Your task to perform on an android device: turn off notifications settings in the gmail app Image 0: 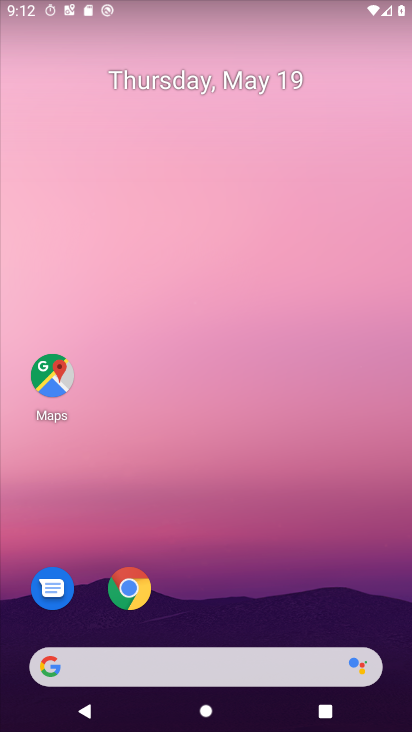
Step 0: press home button
Your task to perform on an android device: turn off notifications settings in the gmail app Image 1: 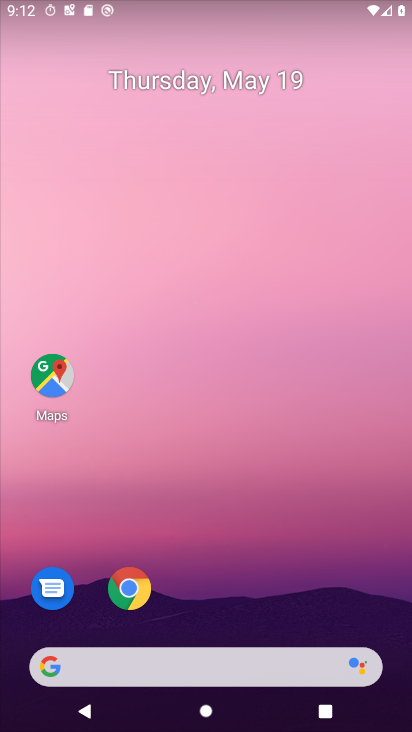
Step 1: drag from (179, 612) to (325, 179)
Your task to perform on an android device: turn off notifications settings in the gmail app Image 2: 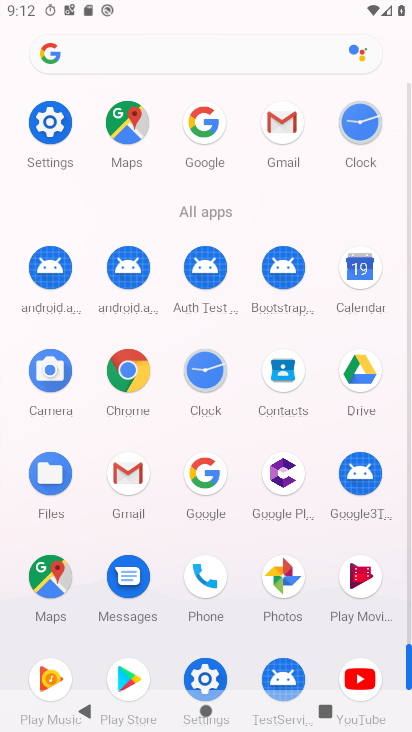
Step 2: click (276, 129)
Your task to perform on an android device: turn off notifications settings in the gmail app Image 3: 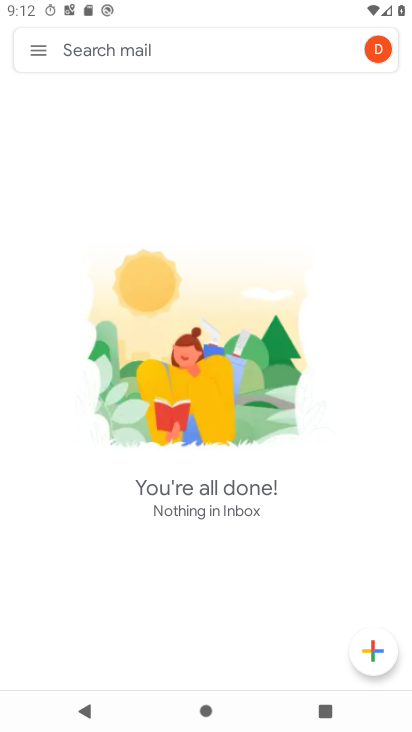
Step 3: click (36, 50)
Your task to perform on an android device: turn off notifications settings in the gmail app Image 4: 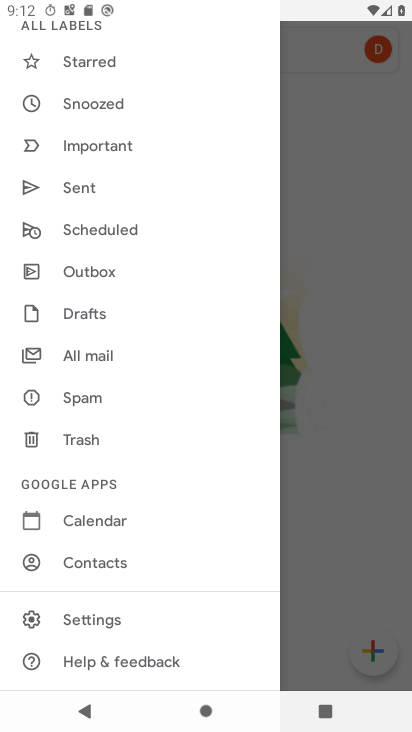
Step 4: click (87, 619)
Your task to perform on an android device: turn off notifications settings in the gmail app Image 5: 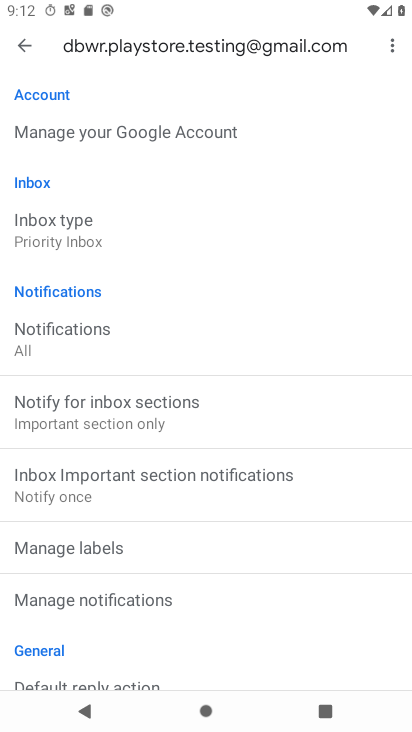
Step 5: click (55, 335)
Your task to perform on an android device: turn off notifications settings in the gmail app Image 6: 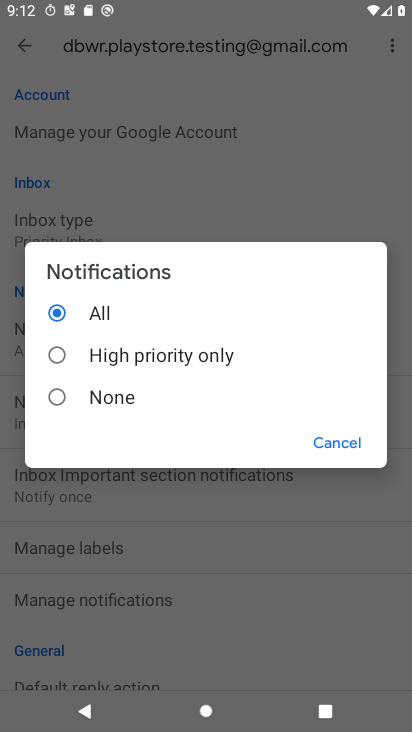
Step 6: click (63, 394)
Your task to perform on an android device: turn off notifications settings in the gmail app Image 7: 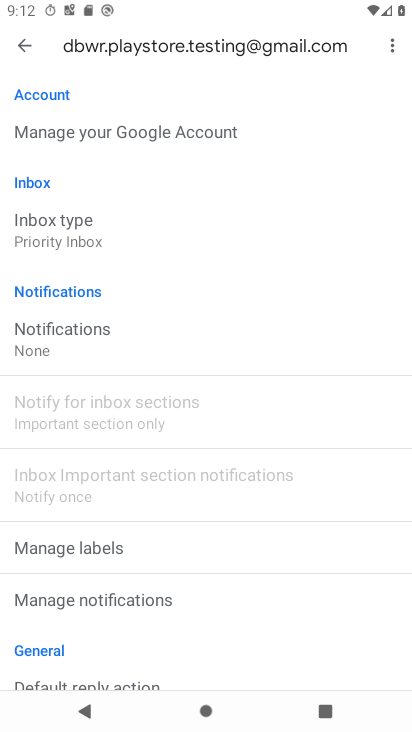
Step 7: task complete